Your task to perform on an android device: What is the recent news? Image 0: 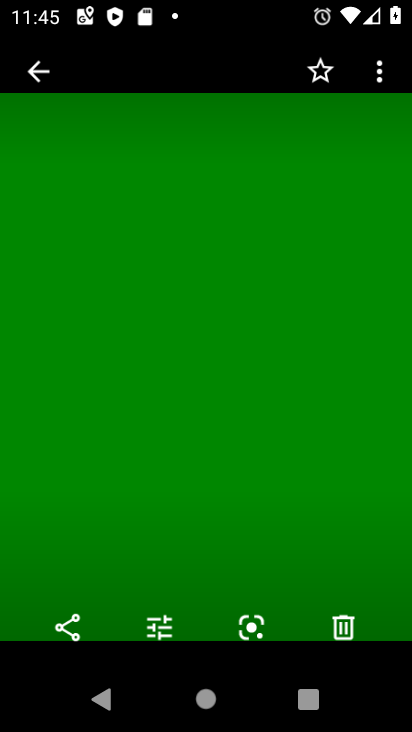
Step 0: press home button
Your task to perform on an android device: What is the recent news? Image 1: 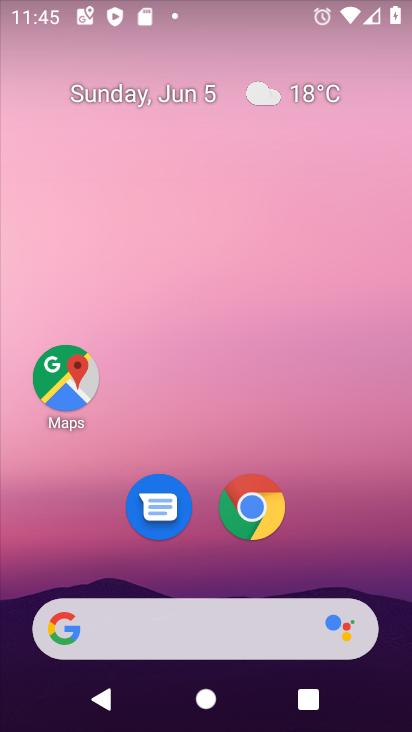
Step 1: task complete